Your task to perform on an android device: remove spam from my inbox in the gmail app Image 0: 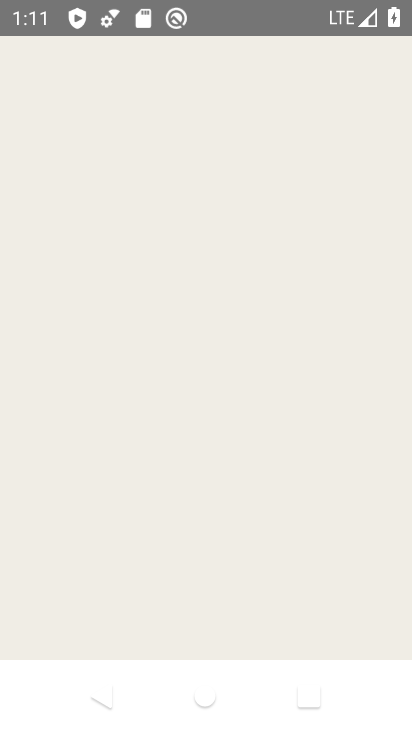
Step 0: press home button
Your task to perform on an android device: remove spam from my inbox in the gmail app Image 1: 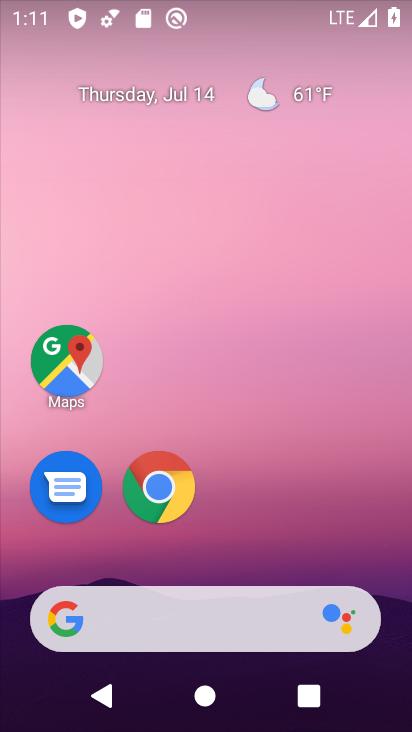
Step 1: drag from (363, 550) to (372, 116)
Your task to perform on an android device: remove spam from my inbox in the gmail app Image 2: 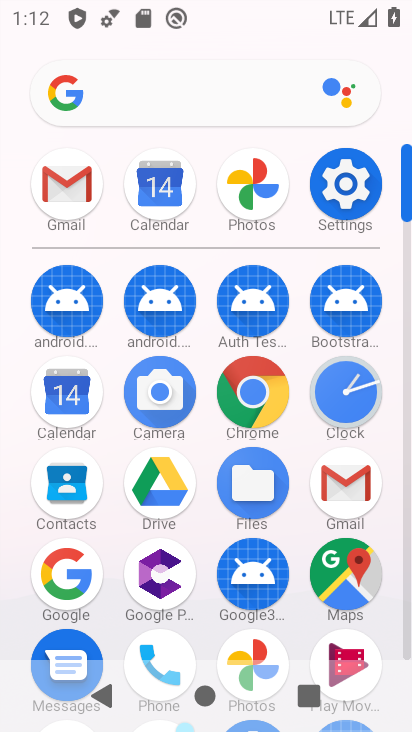
Step 2: click (344, 486)
Your task to perform on an android device: remove spam from my inbox in the gmail app Image 3: 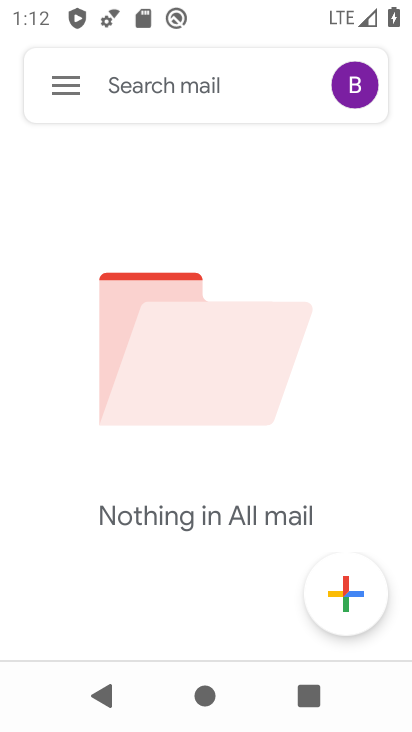
Step 3: click (66, 94)
Your task to perform on an android device: remove spam from my inbox in the gmail app Image 4: 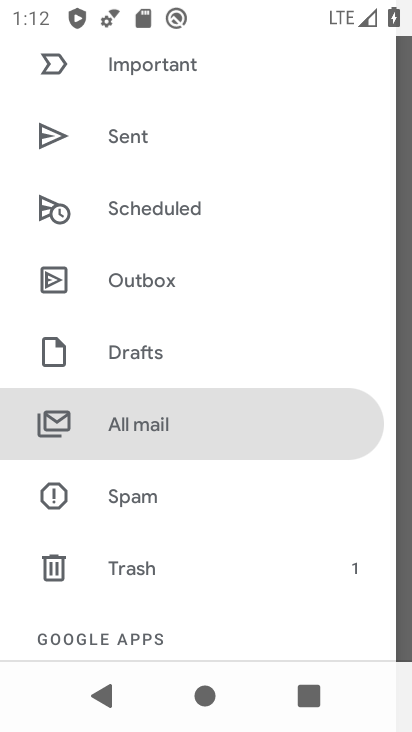
Step 4: drag from (257, 503) to (275, 384)
Your task to perform on an android device: remove spam from my inbox in the gmail app Image 5: 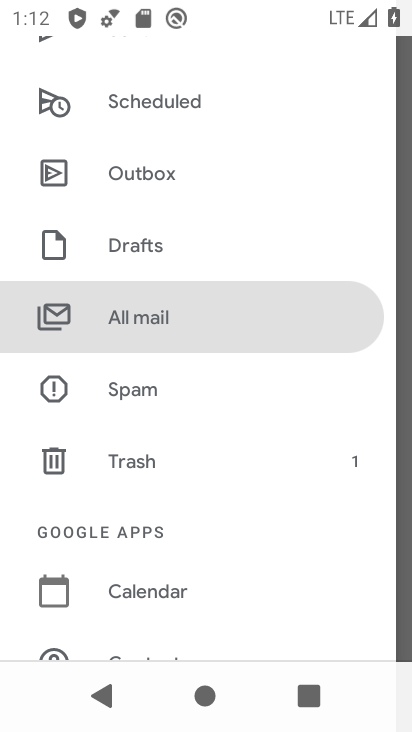
Step 5: drag from (255, 530) to (258, 373)
Your task to perform on an android device: remove spam from my inbox in the gmail app Image 6: 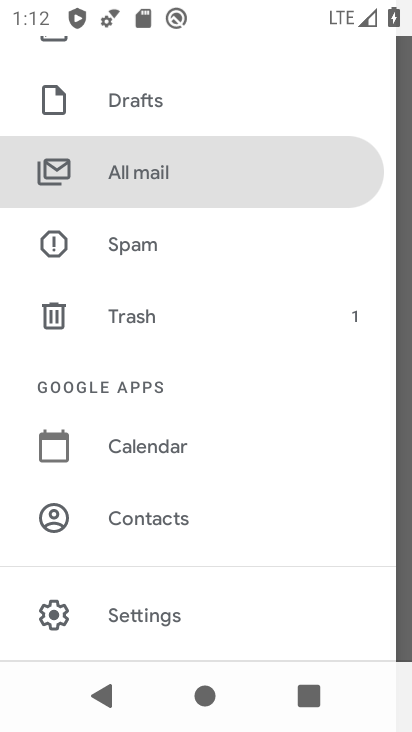
Step 6: click (184, 244)
Your task to perform on an android device: remove spam from my inbox in the gmail app Image 7: 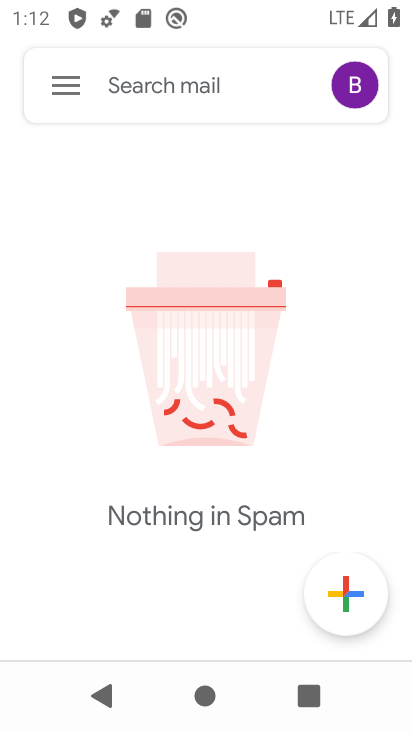
Step 7: task complete